Your task to perform on an android device: Play the last video I watched on Youtube Image 0: 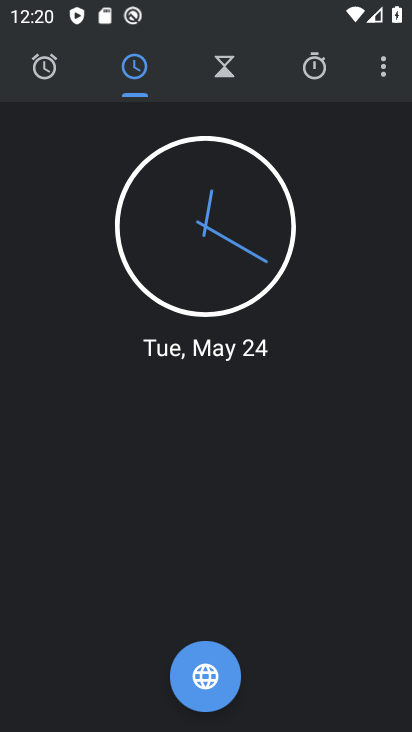
Step 0: press home button
Your task to perform on an android device: Play the last video I watched on Youtube Image 1: 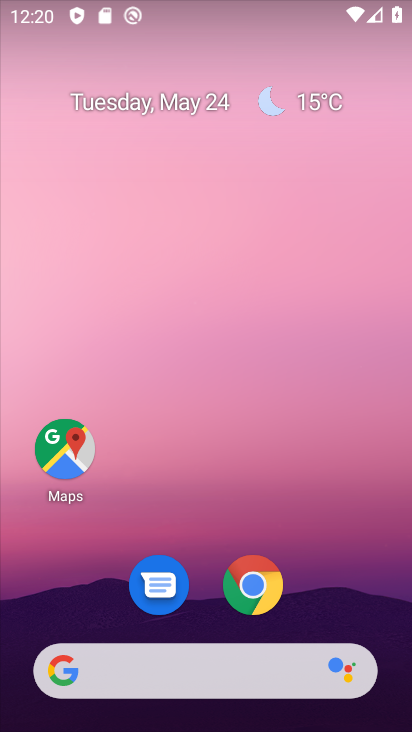
Step 1: drag from (238, 478) to (273, 20)
Your task to perform on an android device: Play the last video I watched on Youtube Image 2: 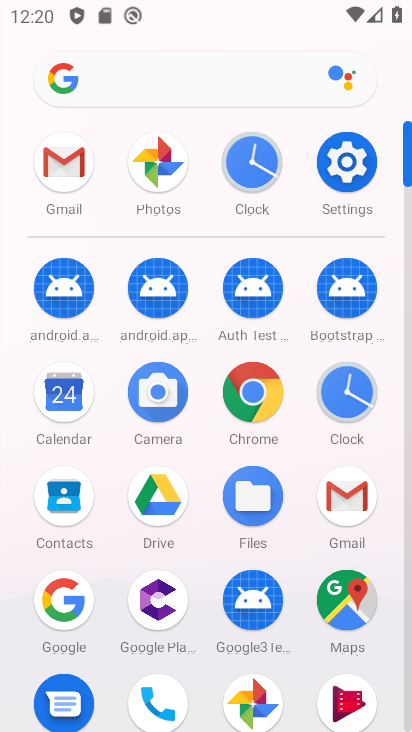
Step 2: drag from (307, 473) to (303, 137)
Your task to perform on an android device: Play the last video I watched on Youtube Image 3: 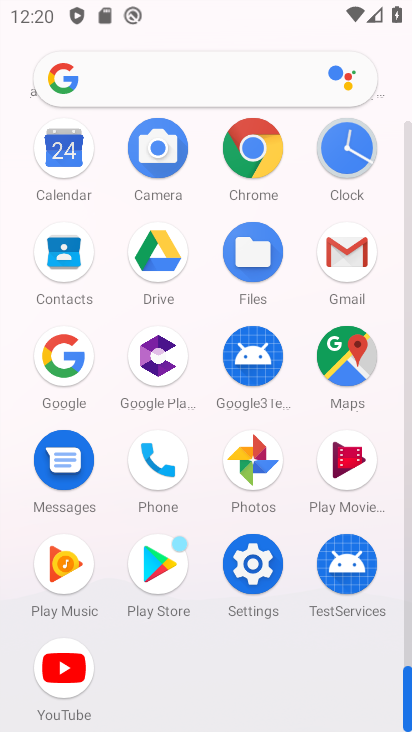
Step 3: click (68, 647)
Your task to perform on an android device: Play the last video I watched on Youtube Image 4: 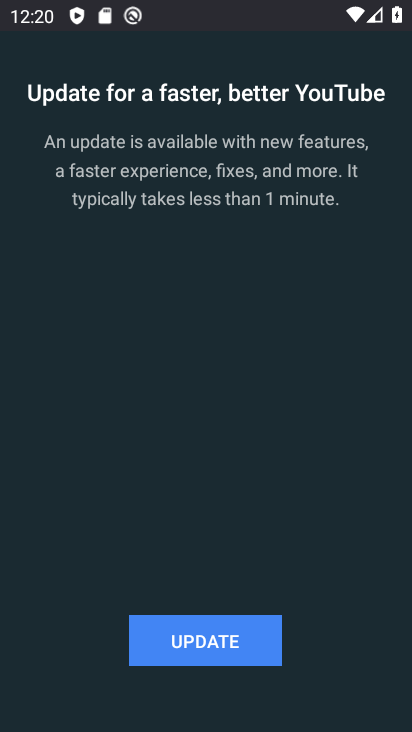
Step 4: click (228, 635)
Your task to perform on an android device: Play the last video I watched on Youtube Image 5: 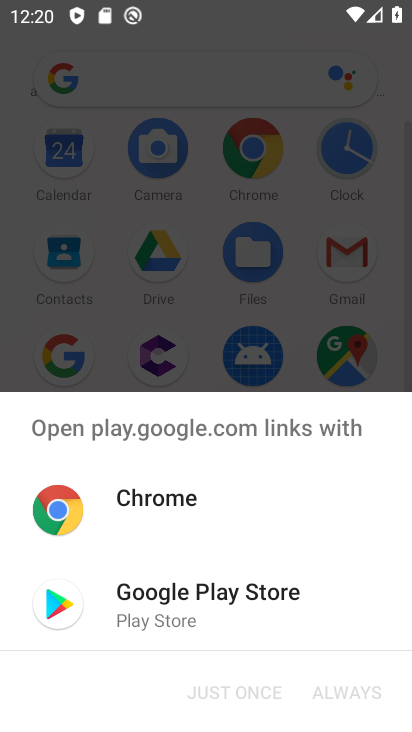
Step 5: click (183, 607)
Your task to perform on an android device: Play the last video I watched on Youtube Image 6: 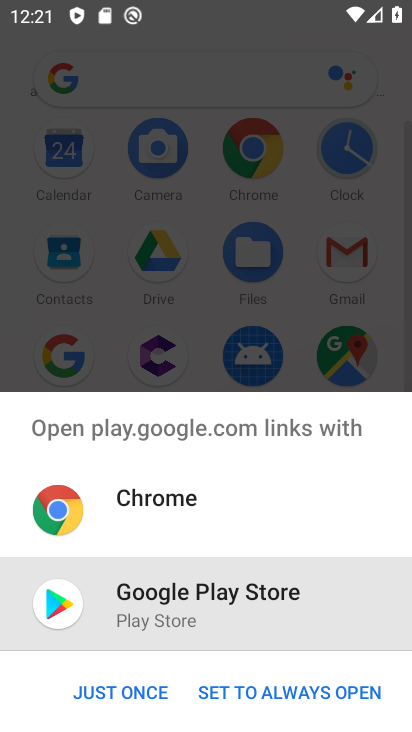
Step 6: click (147, 691)
Your task to perform on an android device: Play the last video I watched on Youtube Image 7: 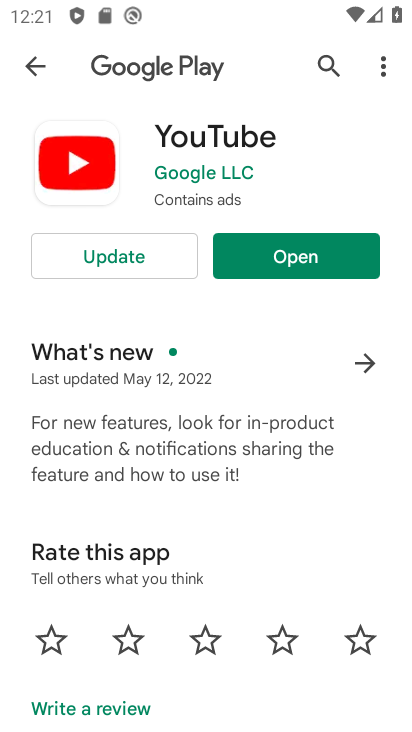
Step 7: click (161, 263)
Your task to perform on an android device: Play the last video I watched on Youtube Image 8: 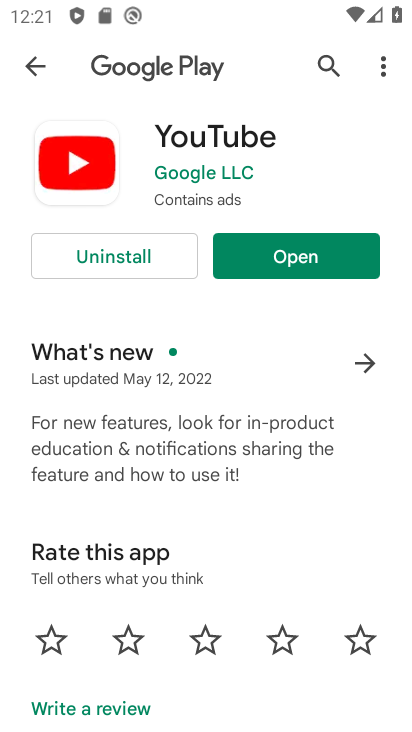
Step 8: click (354, 238)
Your task to perform on an android device: Play the last video I watched on Youtube Image 9: 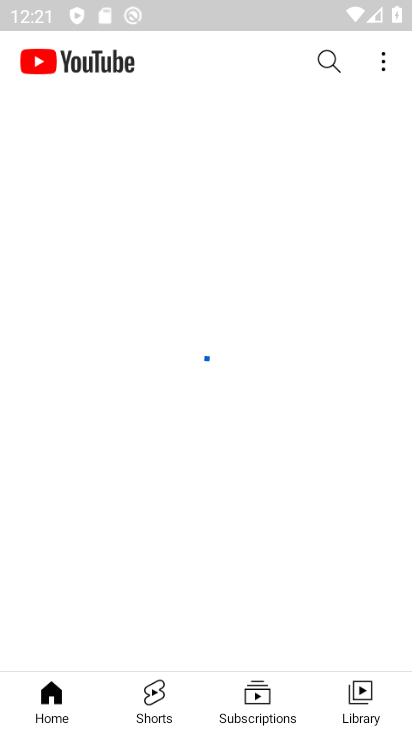
Step 9: click (362, 693)
Your task to perform on an android device: Play the last video I watched on Youtube Image 10: 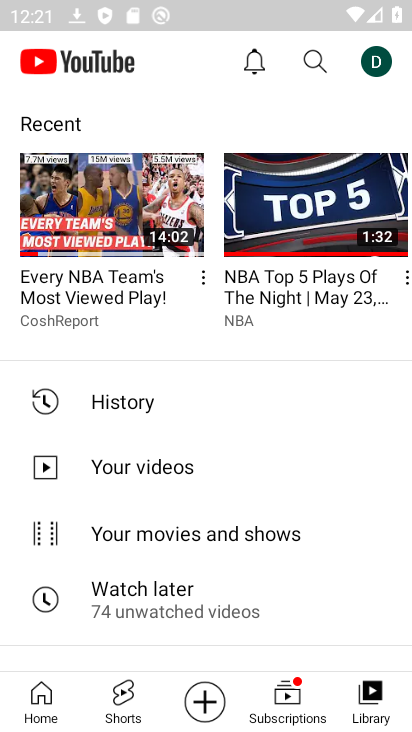
Step 10: click (134, 405)
Your task to perform on an android device: Play the last video I watched on Youtube Image 11: 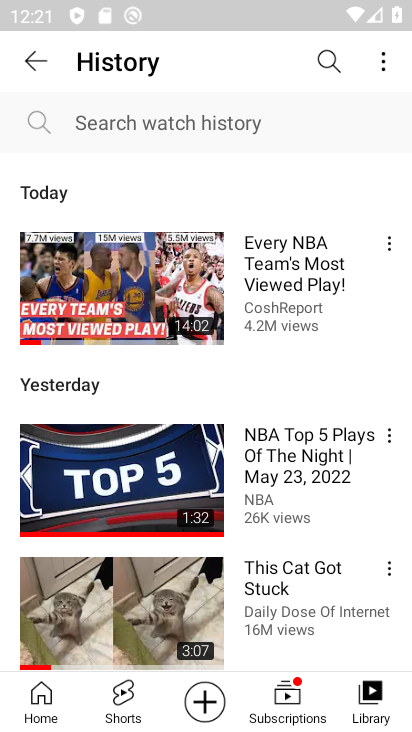
Step 11: click (168, 277)
Your task to perform on an android device: Play the last video I watched on Youtube Image 12: 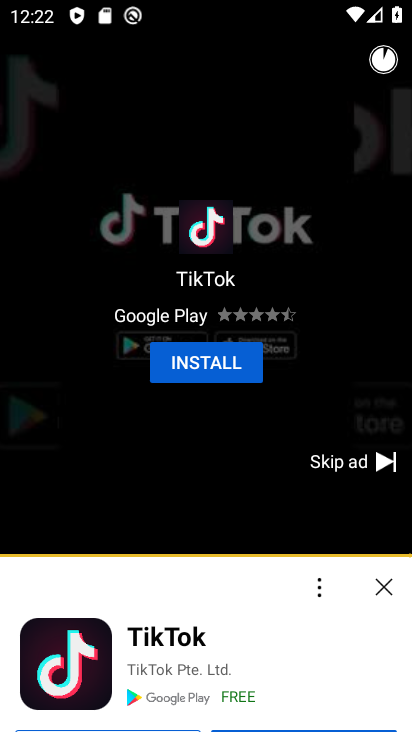
Step 12: click (332, 483)
Your task to perform on an android device: Play the last video I watched on Youtube Image 13: 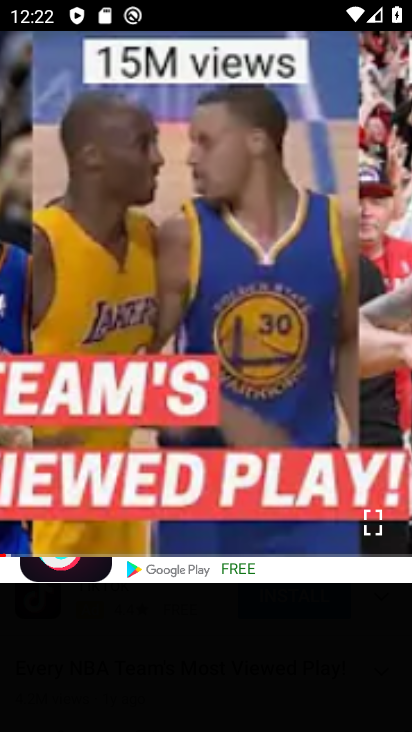
Step 13: click (338, 464)
Your task to perform on an android device: Play the last video I watched on Youtube Image 14: 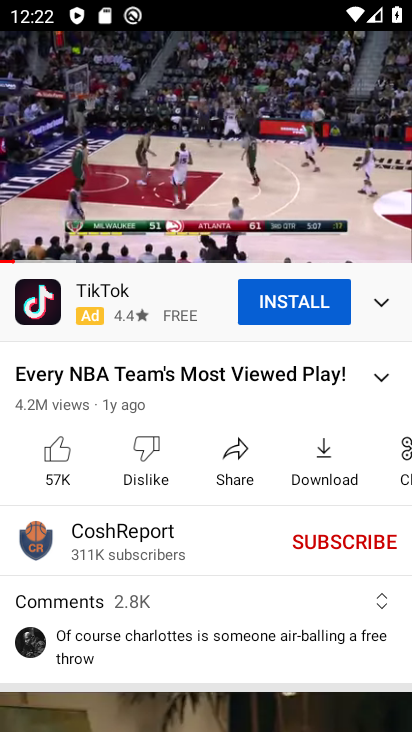
Step 14: task complete